Your task to perform on an android device: Find coffee shops on Maps Image 0: 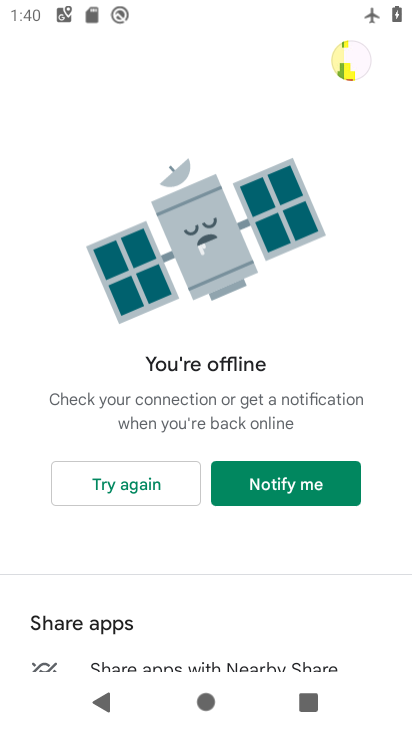
Step 0: press home button
Your task to perform on an android device: Find coffee shops on Maps Image 1: 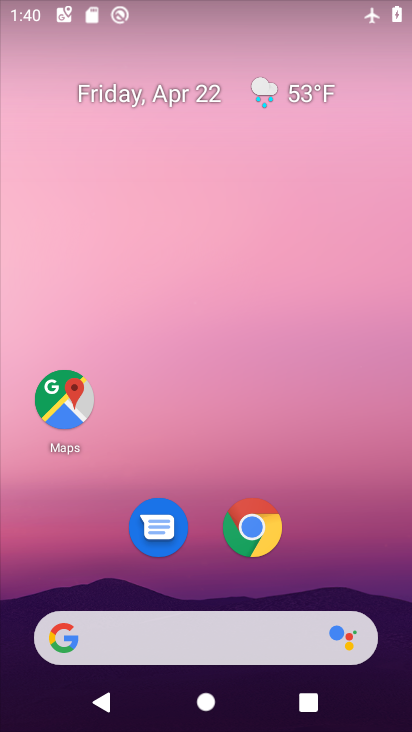
Step 1: click (76, 415)
Your task to perform on an android device: Find coffee shops on Maps Image 2: 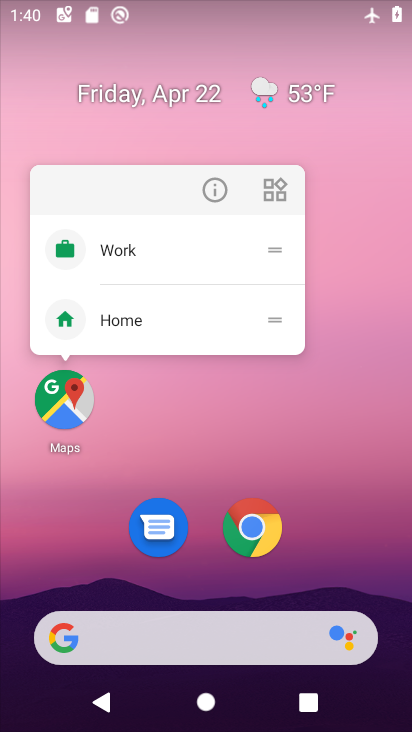
Step 2: click (75, 420)
Your task to perform on an android device: Find coffee shops on Maps Image 3: 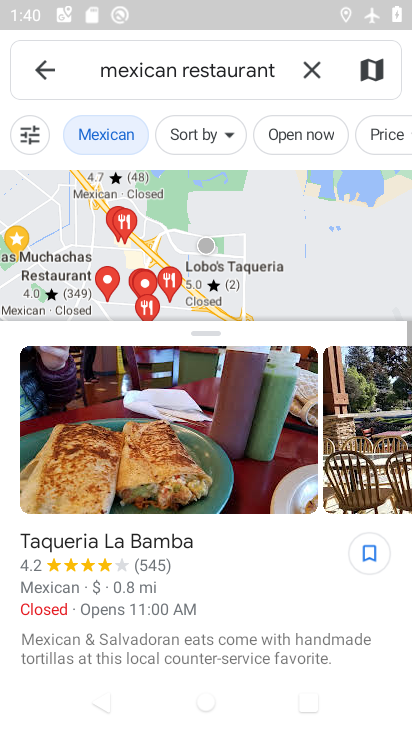
Step 3: click (310, 66)
Your task to perform on an android device: Find coffee shops on Maps Image 4: 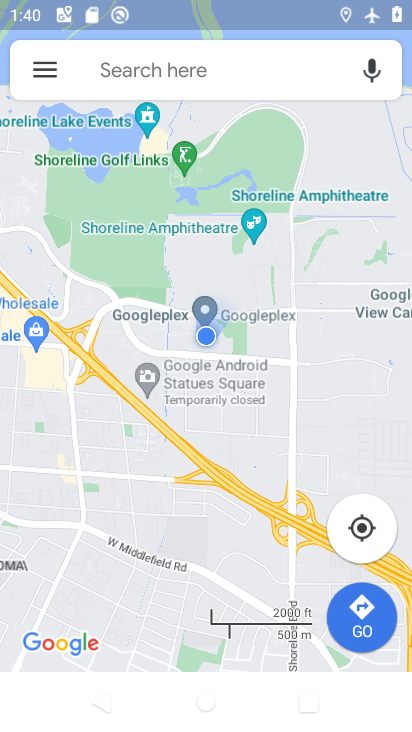
Step 4: click (184, 62)
Your task to perform on an android device: Find coffee shops on Maps Image 5: 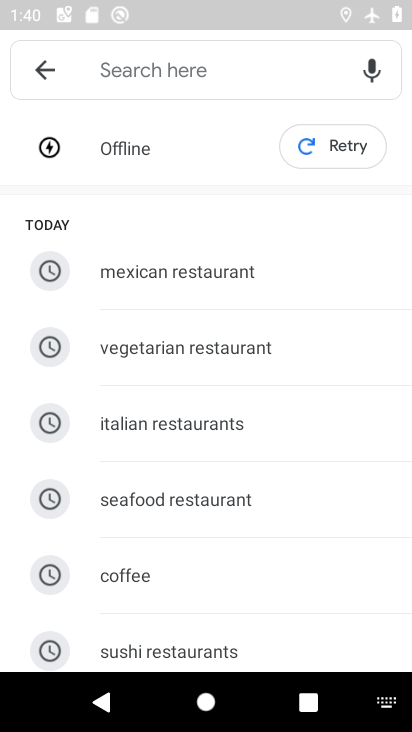
Step 5: click (173, 571)
Your task to perform on an android device: Find coffee shops on Maps Image 6: 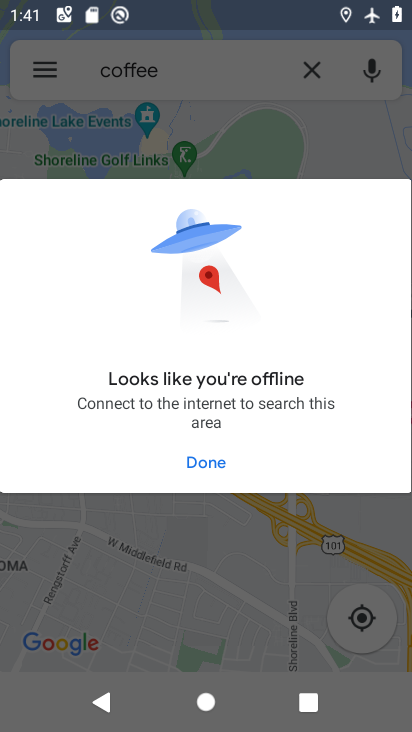
Step 6: click (208, 464)
Your task to perform on an android device: Find coffee shops on Maps Image 7: 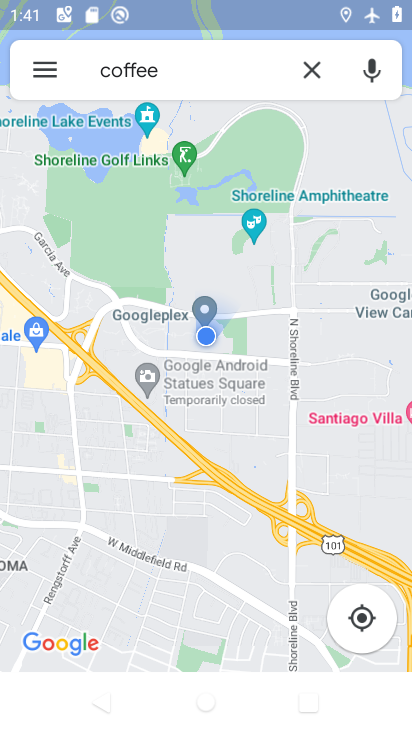
Step 7: task complete